Your task to perform on an android device: change your default location settings in chrome Image 0: 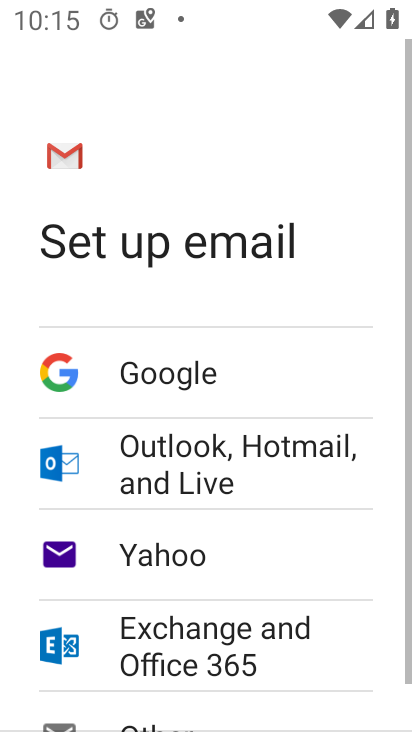
Step 0: press home button
Your task to perform on an android device: change your default location settings in chrome Image 1: 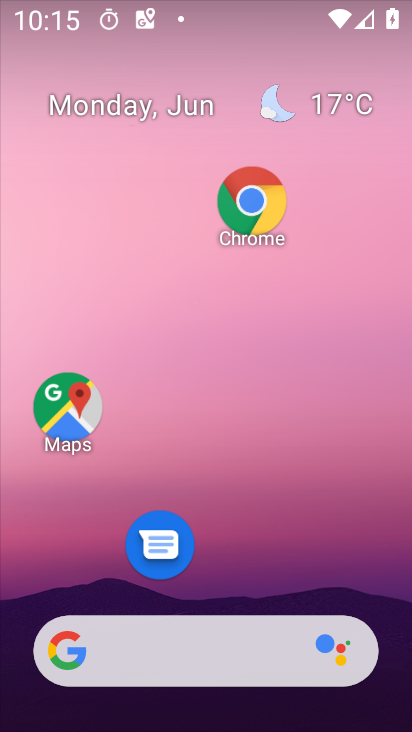
Step 1: click (252, 227)
Your task to perform on an android device: change your default location settings in chrome Image 2: 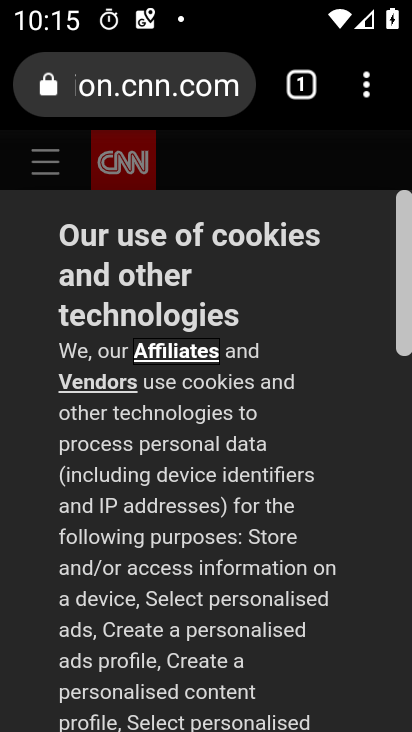
Step 2: click (367, 82)
Your task to perform on an android device: change your default location settings in chrome Image 3: 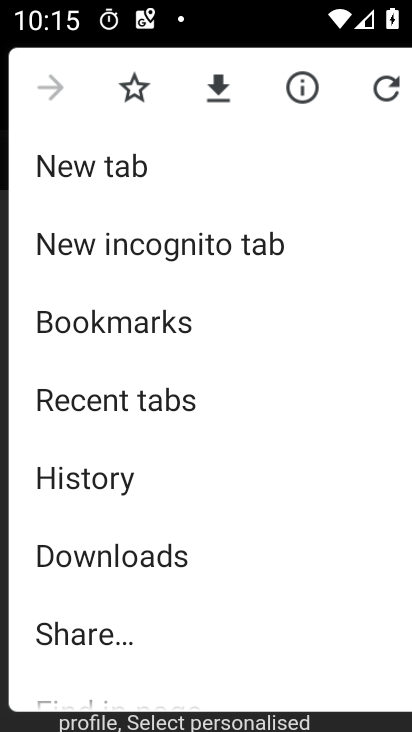
Step 3: drag from (82, 622) to (48, 230)
Your task to perform on an android device: change your default location settings in chrome Image 4: 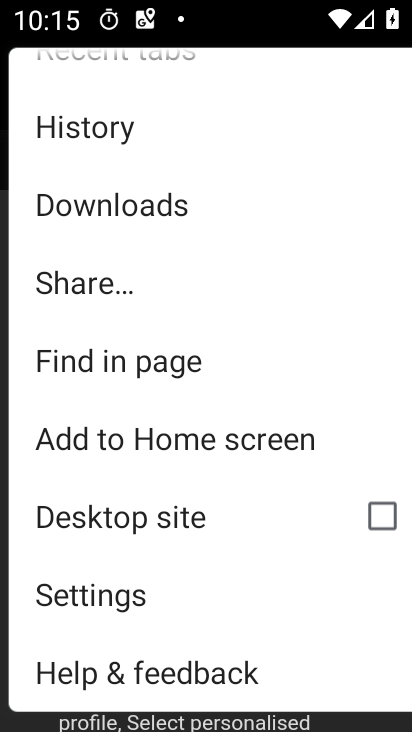
Step 4: click (93, 610)
Your task to perform on an android device: change your default location settings in chrome Image 5: 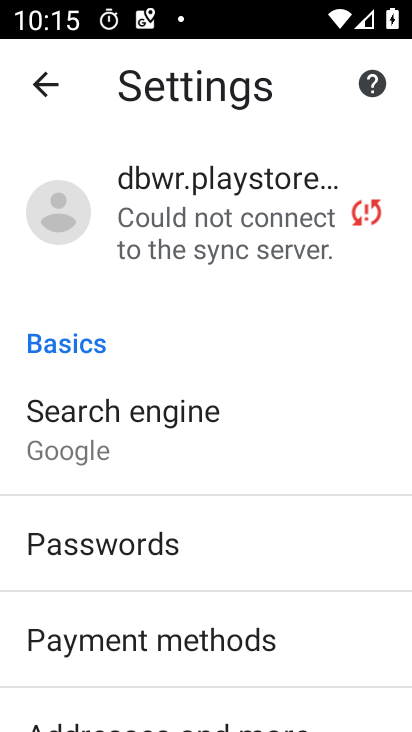
Step 5: drag from (252, 598) to (174, 153)
Your task to perform on an android device: change your default location settings in chrome Image 6: 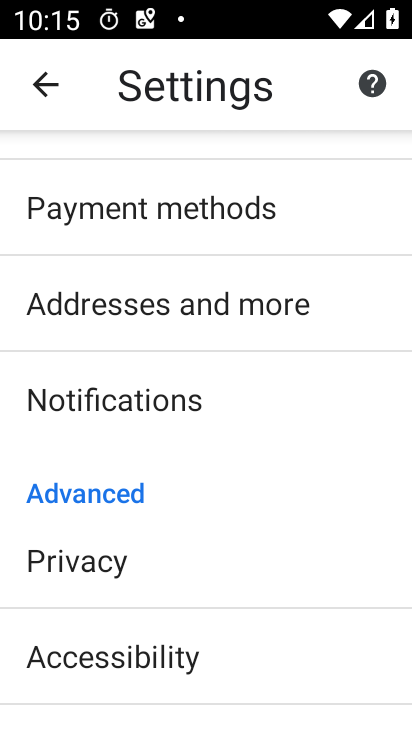
Step 6: drag from (253, 594) to (150, 158)
Your task to perform on an android device: change your default location settings in chrome Image 7: 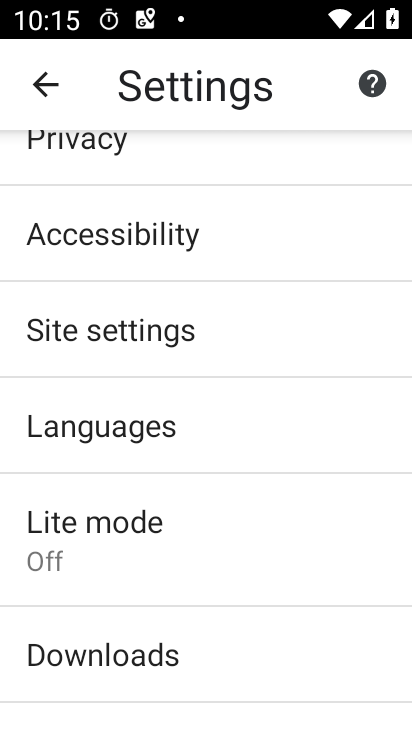
Step 7: click (124, 358)
Your task to perform on an android device: change your default location settings in chrome Image 8: 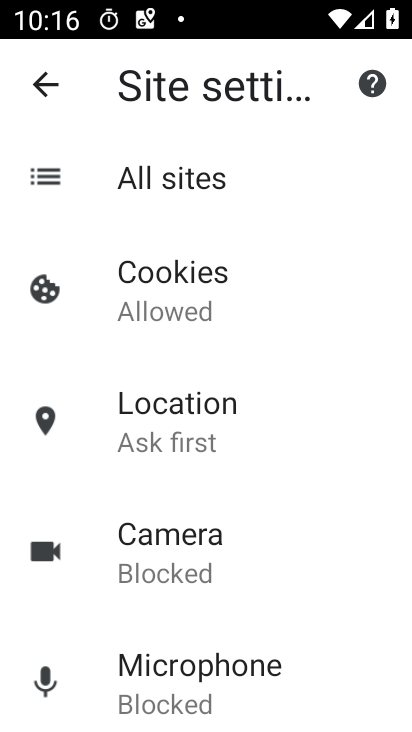
Step 8: click (217, 456)
Your task to perform on an android device: change your default location settings in chrome Image 9: 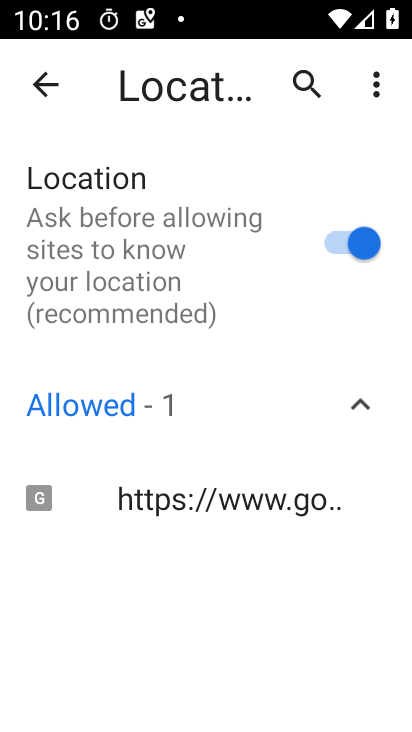
Step 9: click (324, 243)
Your task to perform on an android device: change your default location settings in chrome Image 10: 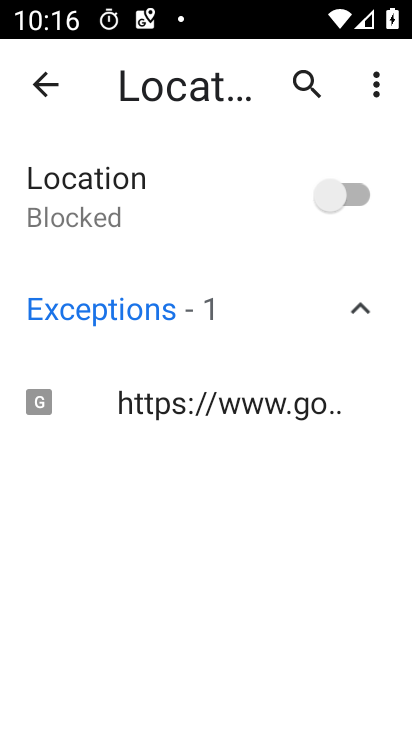
Step 10: task complete